Your task to perform on an android device: Open the stopwatch Image 0: 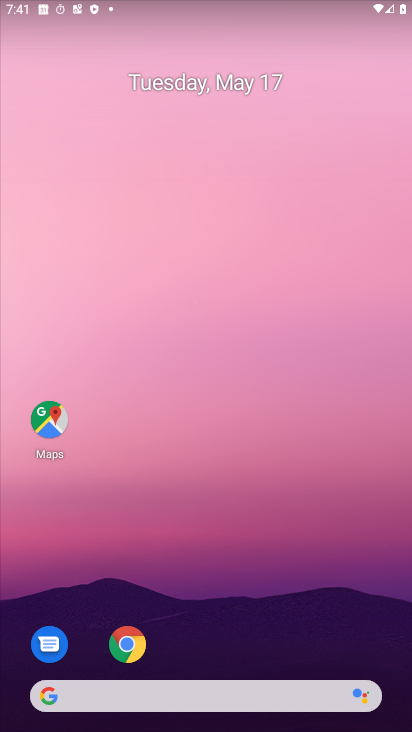
Step 0: drag from (275, 624) to (203, 11)
Your task to perform on an android device: Open the stopwatch Image 1: 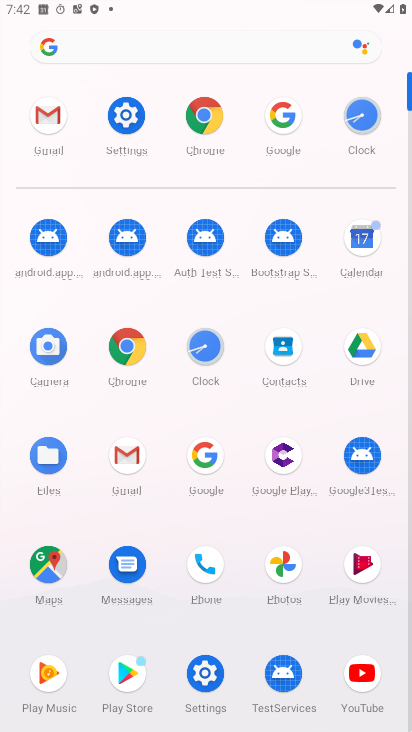
Step 1: click (350, 128)
Your task to perform on an android device: Open the stopwatch Image 2: 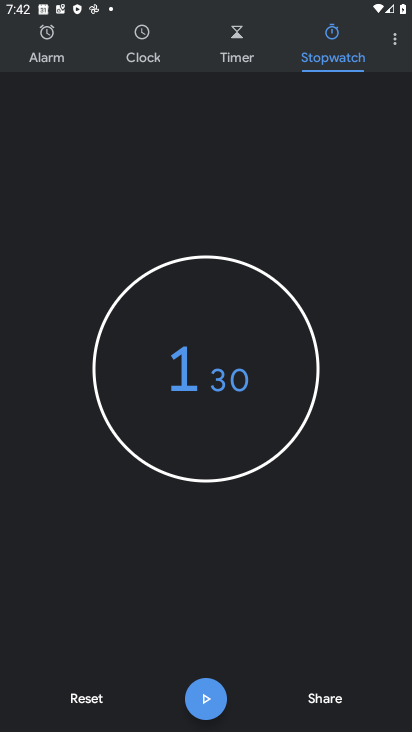
Step 2: task complete